Your task to perform on an android device: turn on showing notifications on the lock screen Image 0: 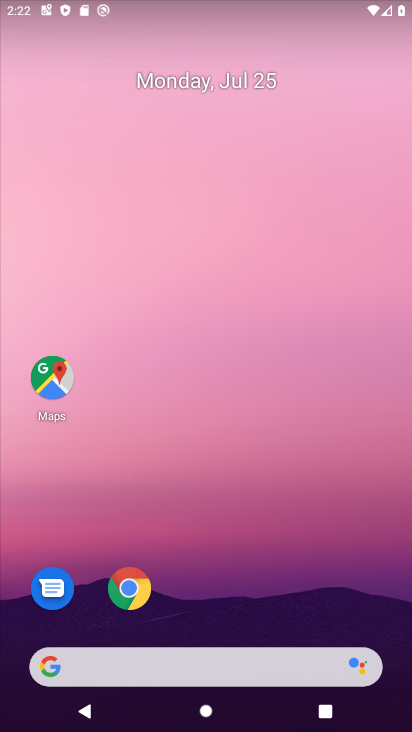
Step 0: click (251, 218)
Your task to perform on an android device: turn on showing notifications on the lock screen Image 1: 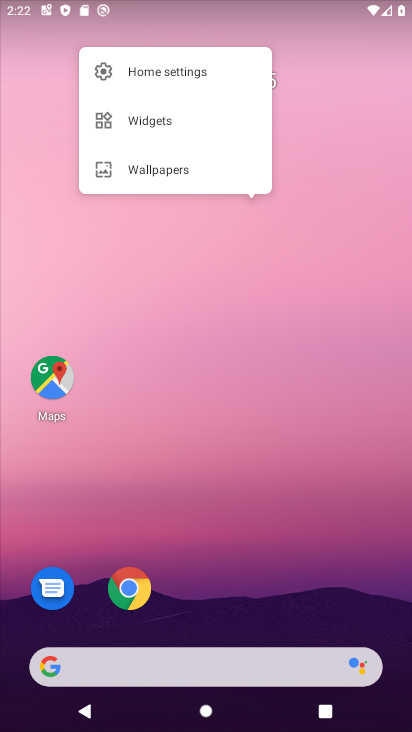
Step 1: click (251, 218)
Your task to perform on an android device: turn on showing notifications on the lock screen Image 2: 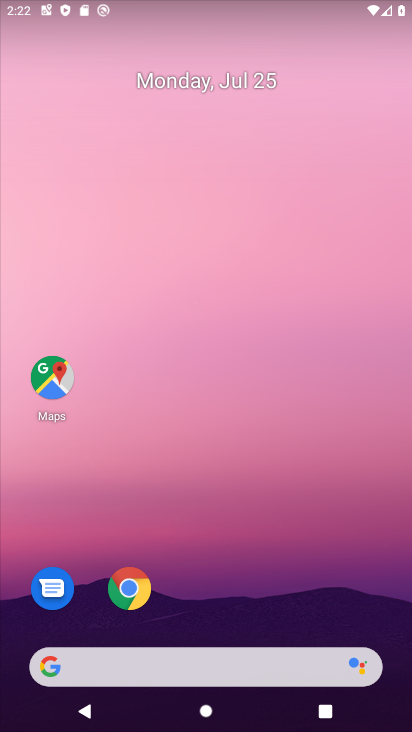
Step 2: click (199, 387)
Your task to perform on an android device: turn on showing notifications on the lock screen Image 3: 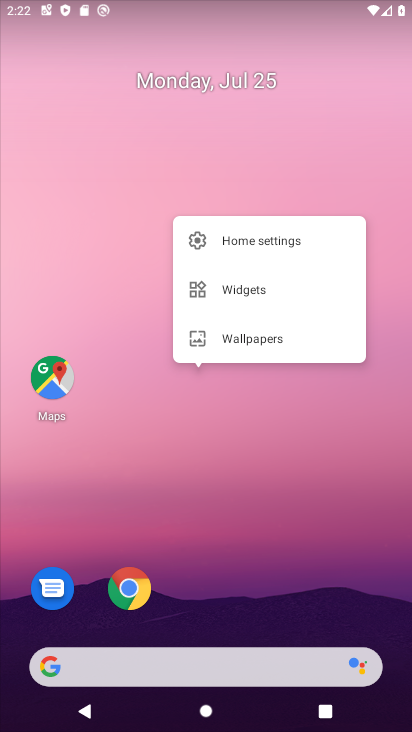
Step 3: drag from (170, 568) to (281, 233)
Your task to perform on an android device: turn on showing notifications on the lock screen Image 4: 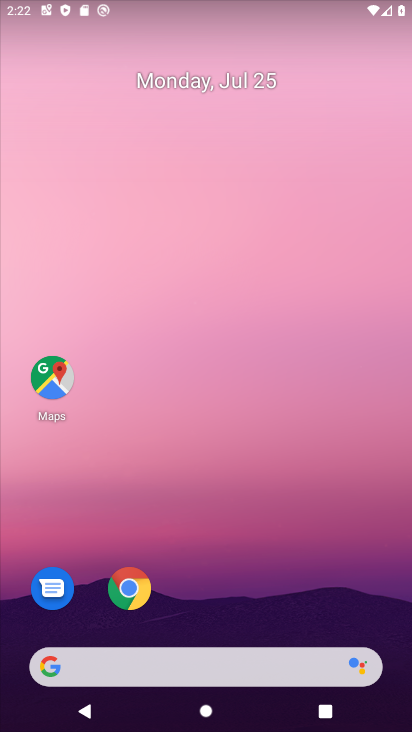
Step 4: click (191, 671)
Your task to perform on an android device: turn on showing notifications on the lock screen Image 5: 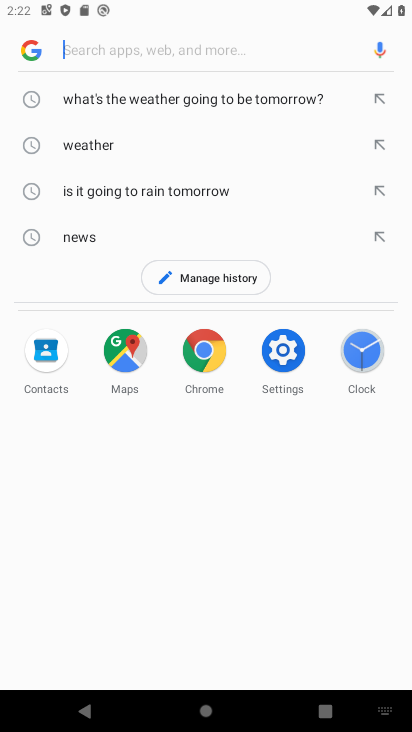
Step 5: click (103, 715)
Your task to perform on an android device: turn on showing notifications on the lock screen Image 6: 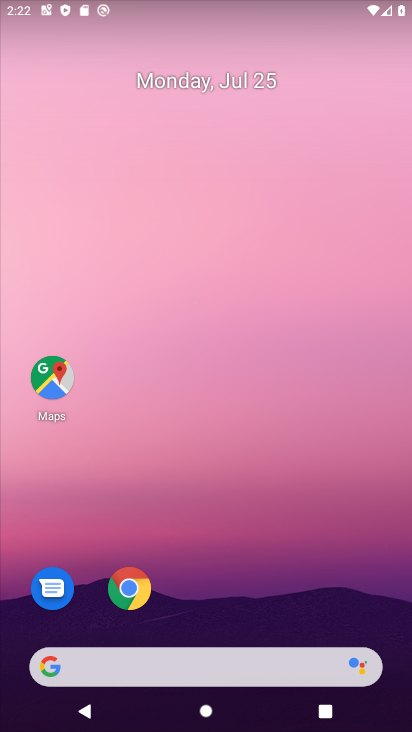
Step 6: drag from (191, 640) to (306, 177)
Your task to perform on an android device: turn on showing notifications on the lock screen Image 7: 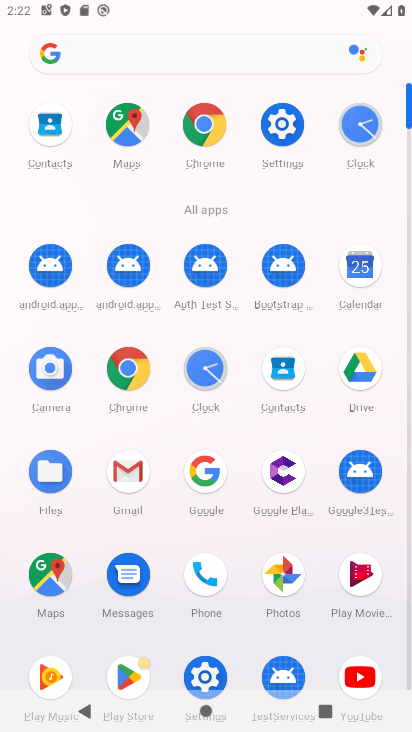
Step 7: click (299, 133)
Your task to perform on an android device: turn on showing notifications on the lock screen Image 8: 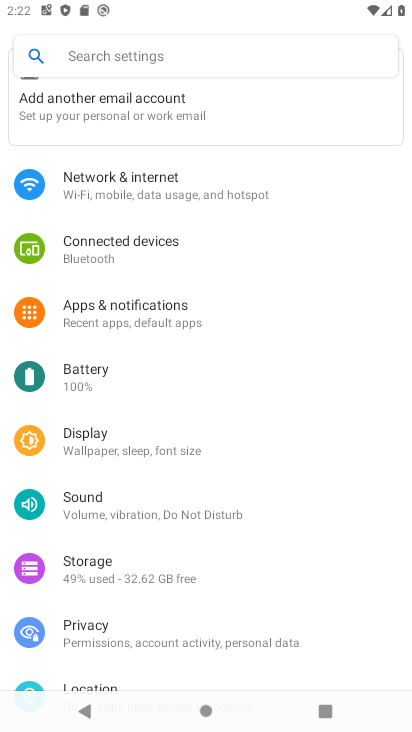
Step 8: click (143, 321)
Your task to perform on an android device: turn on showing notifications on the lock screen Image 9: 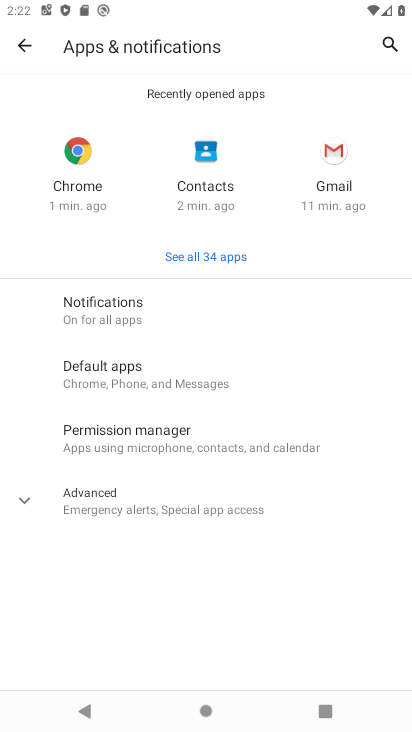
Step 9: click (149, 305)
Your task to perform on an android device: turn on showing notifications on the lock screen Image 10: 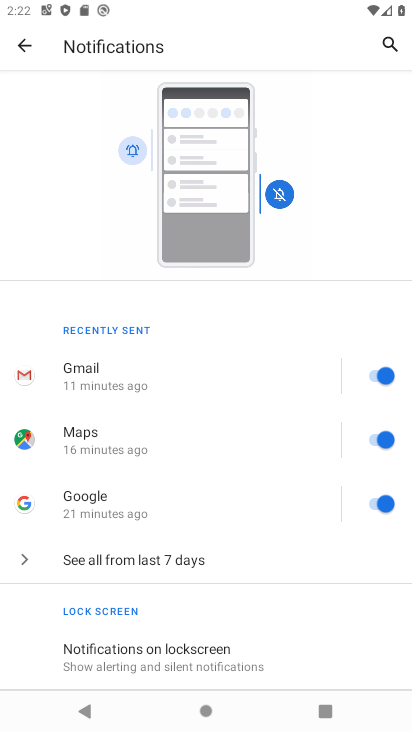
Step 10: click (126, 656)
Your task to perform on an android device: turn on showing notifications on the lock screen Image 11: 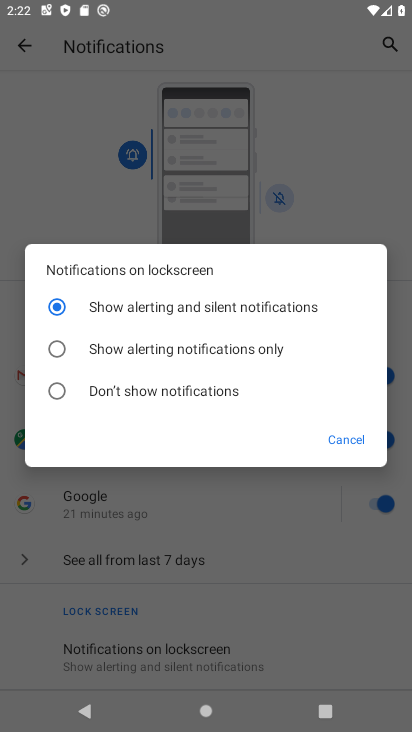
Step 11: task complete